Your task to perform on an android device: turn off smart reply in the gmail app Image 0: 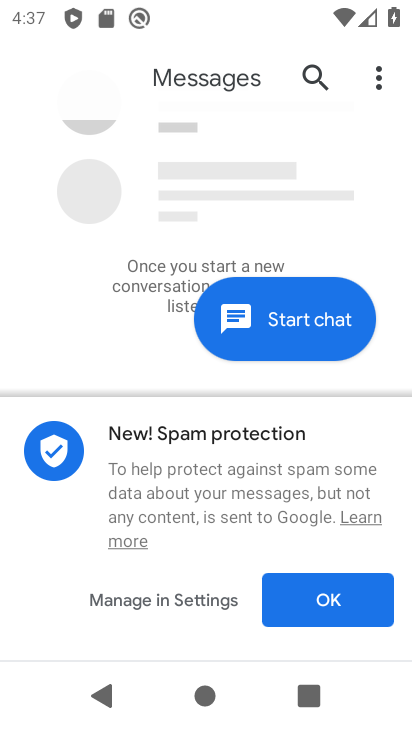
Step 0: press home button
Your task to perform on an android device: turn off smart reply in the gmail app Image 1: 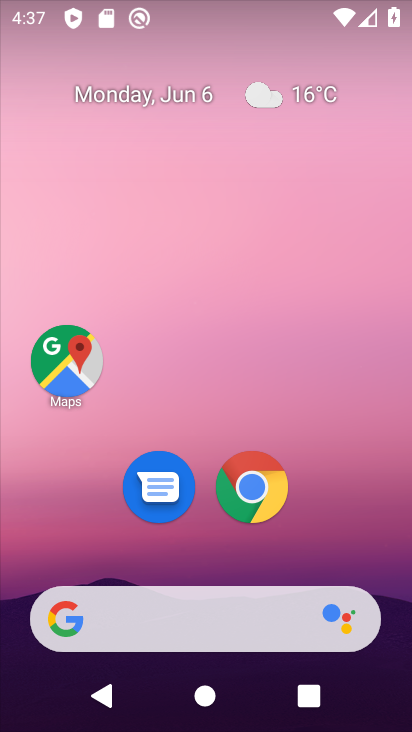
Step 1: drag from (193, 561) to (235, 23)
Your task to perform on an android device: turn off smart reply in the gmail app Image 2: 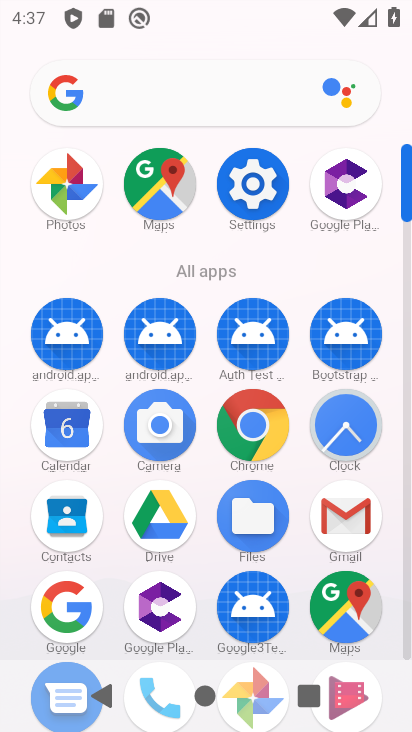
Step 2: click (346, 513)
Your task to perform on an android device: turn off smart reply in the gmail app Image 3: 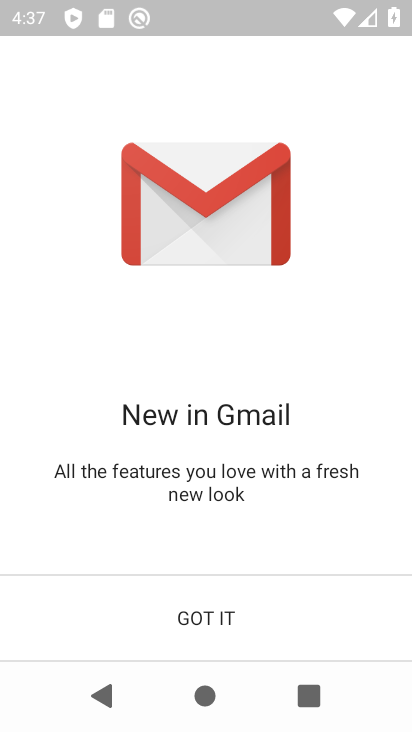
Step 3: click (298, 607)
Your task to perform on an android device: turn off smart reply in the gmail app Image 4: 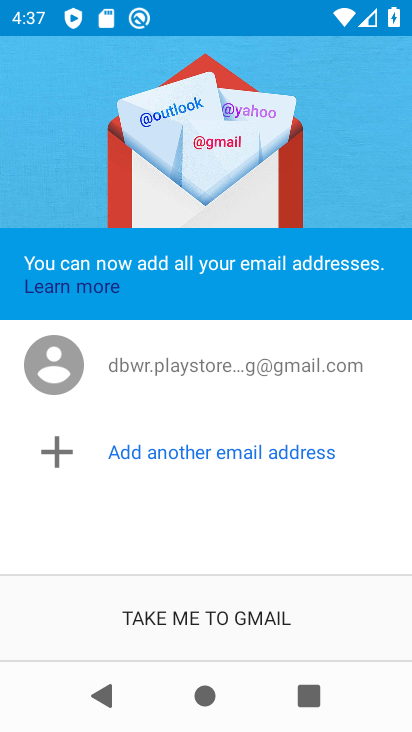
Step 4: click (297, 608)
Your task to perform on an android device: turn off smart reply in the gmail app Image 5: 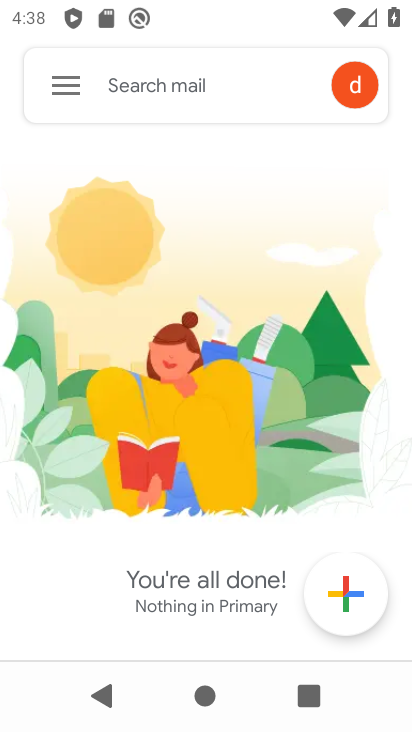
Step 5: click (67, 89)
Your task to perform on an android device: turn off smart reply in the gmail app Image 6: 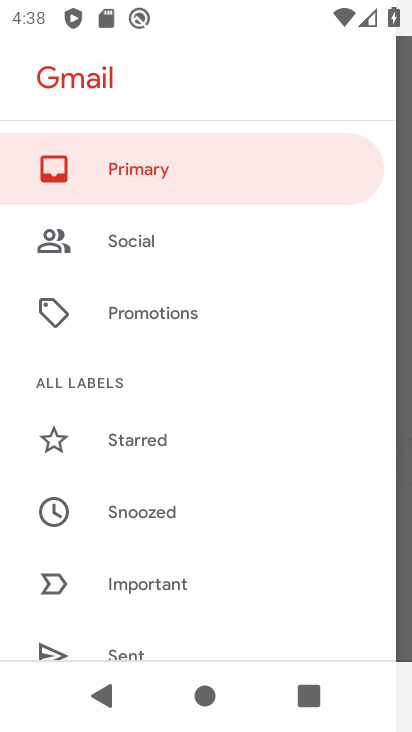
Step 6: drag from (192, 521) to (230, 8)
Your task to perform on an android device: turn off smart reply in the gmail app Image 7: 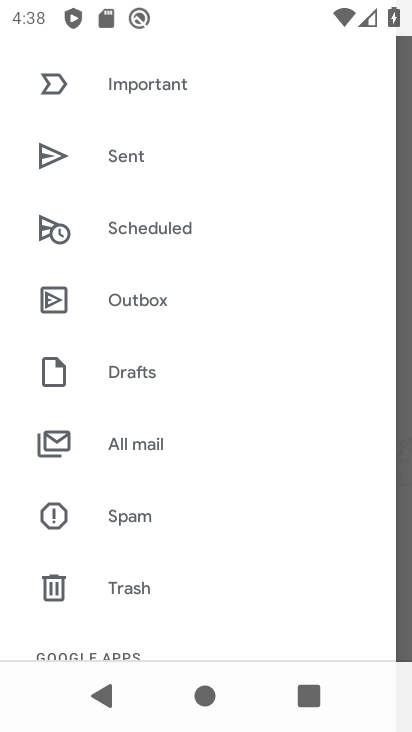
Step 7: drag from (220, 597) to (225, 133)
Your task to perform on an android device: turn off smart reply in the gmail app Image 8: 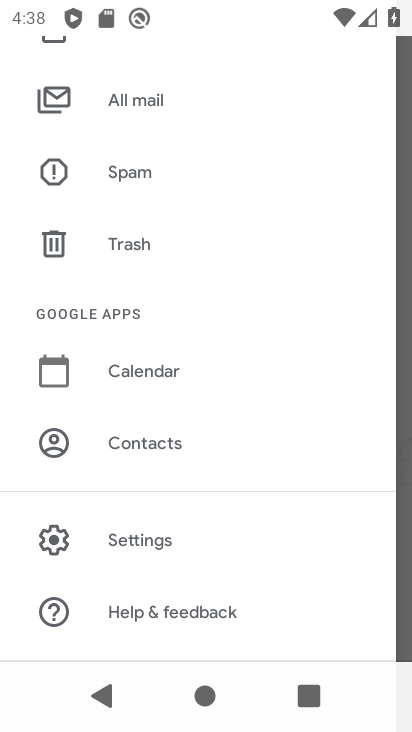
Step 8: click (203, 523)
Your task to perform on an android device: turn off smart reply in the gmail app Image 9: 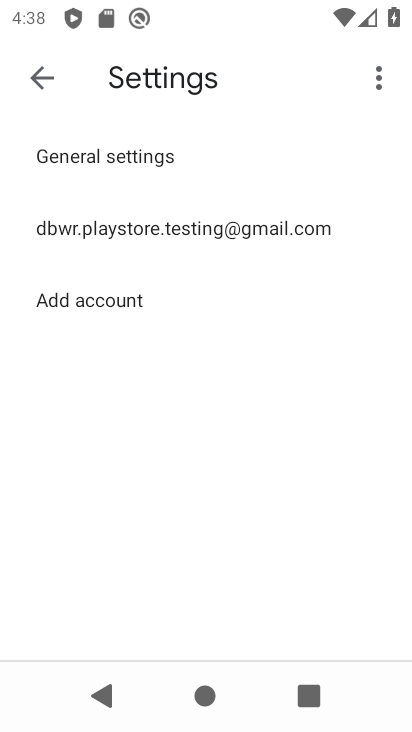
Step 9: click (268, 225)
Your task to perform on an android device: turn off smart reply in the gmail app Image 10: 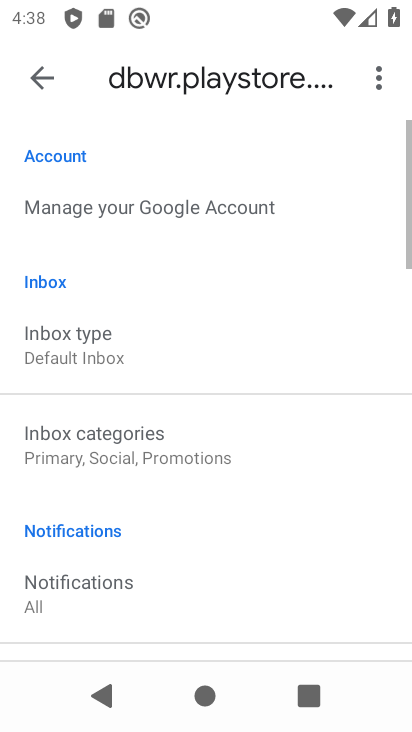
Step 10: drag from (223, 525) to (252, 11)
Your task to perform on an android device: turn off smart reply in the gmail app Image 11: 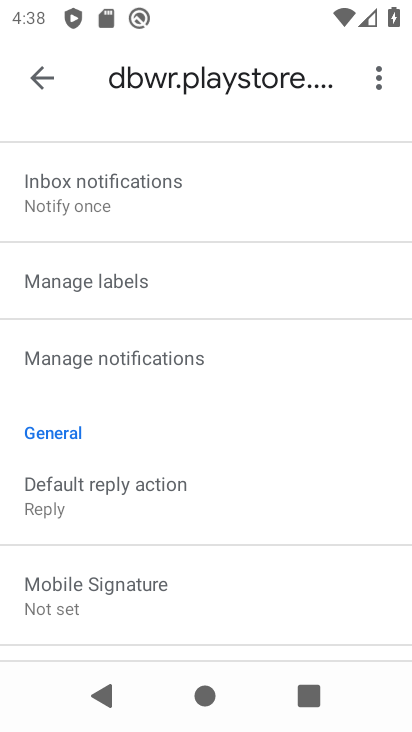
Step 11: drag from (244, 582) to (271, 0)
Your task to perform on an android device: turn off smart reply in the gmail app Image 12: 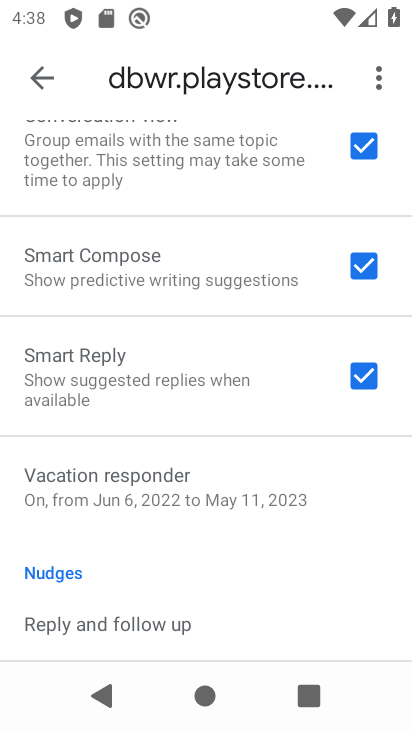
Step 12: click (360, 376)
Your task to perform on an android device: turn off smart reply in the gmail app Image 13: 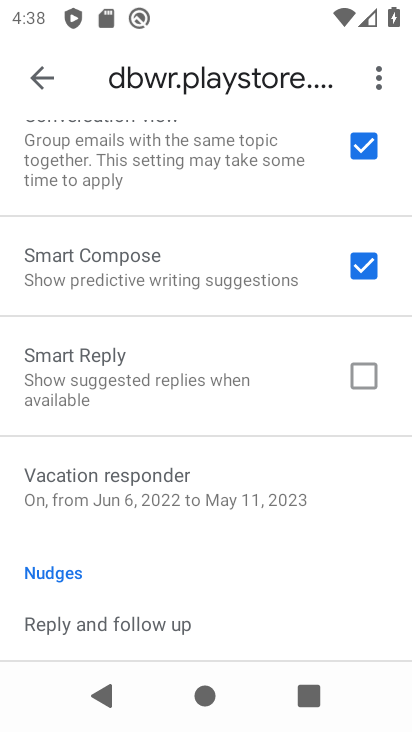
Step 13: task complete